Your task to perform on an android device: allow cookies in the chrome app Image 0: 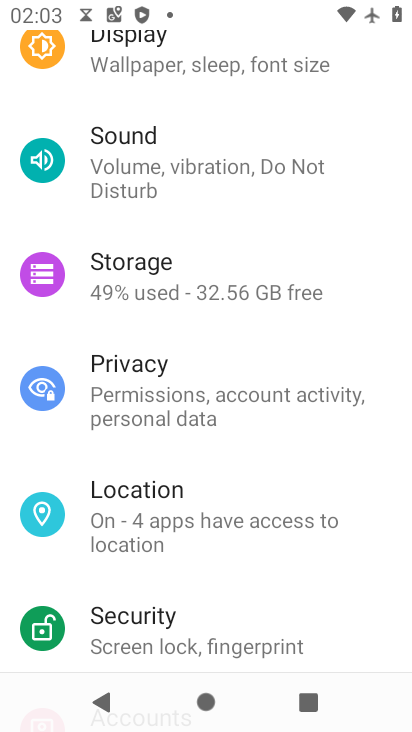
Step 0: press home button
Your task to perform on an android device: allow cookies in the chrome app Image 1: 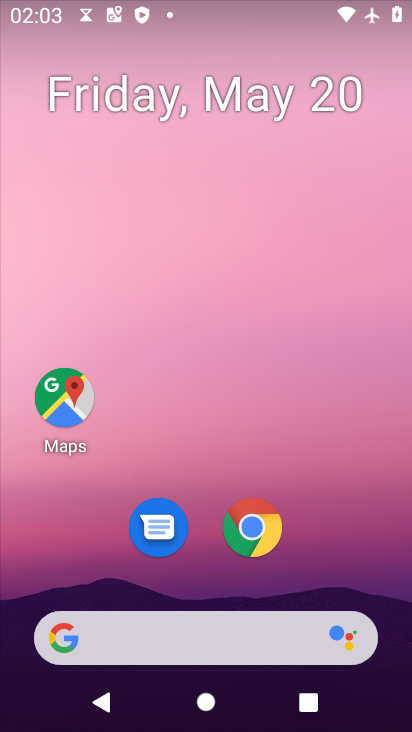
Step 1: click (254, 537)
Your task to perform on an android device: allow cookies in the chrome app Image 2: 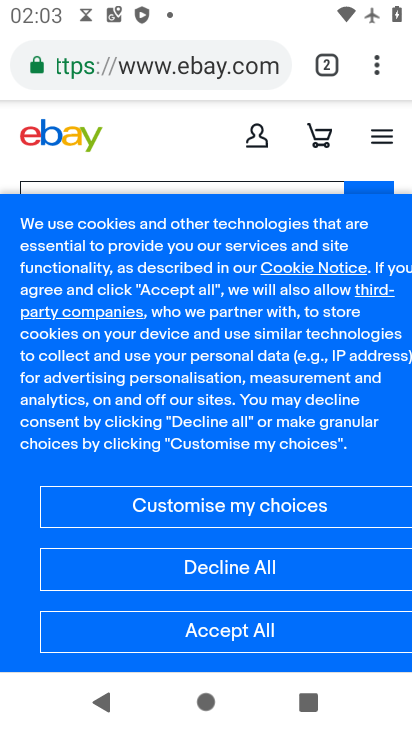
Step 2: drag from (373, 70) to (261, 592)
Your task to perform on an android device: allow cookies in the chrome app Image 3: 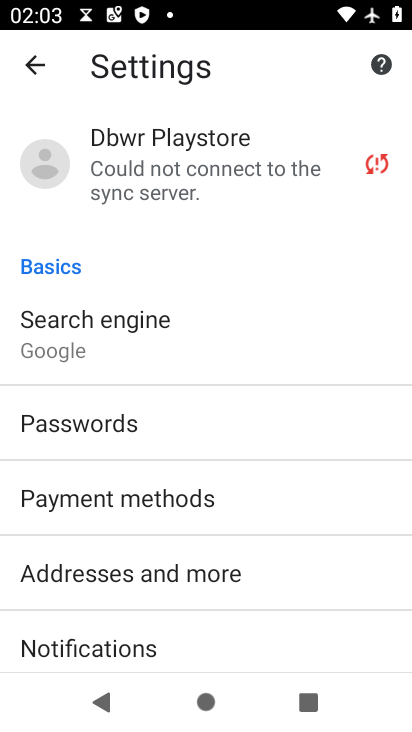
Step 3: drag from (250, 597) to (300, 161)
Your task to perform on an android device: allow cookies in the chrome app Image 4: 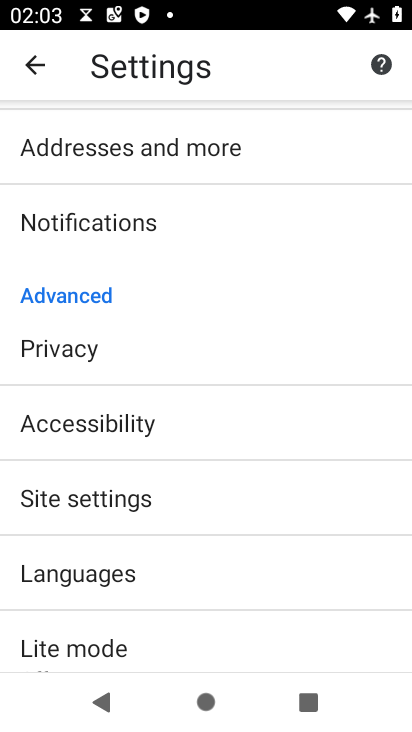
Step 4: click (122, 508)
Your task to perform on an android device: allow cookies in the chrome app Image 5: 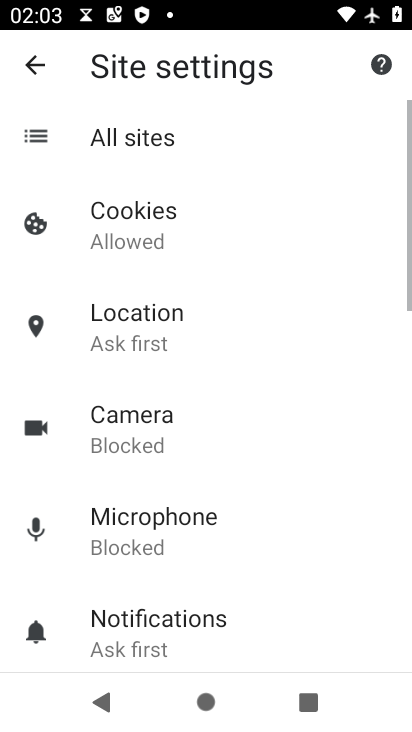
Step 5: click (122, 242)
Your task to perform on an android device: allow cookies in the chrome app Image 6: 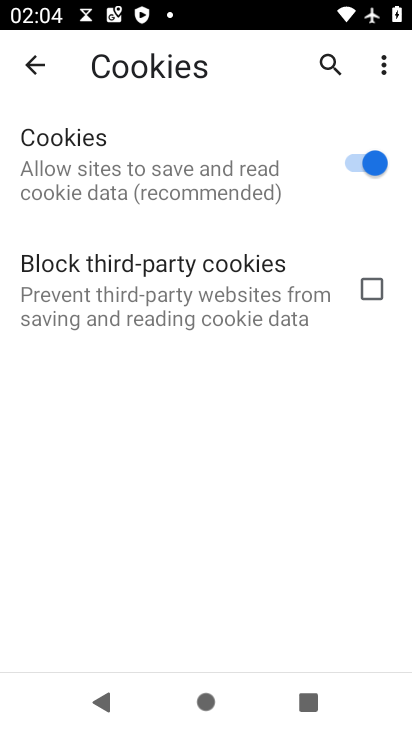
Step 6: task complete